Your task to perform on an android device: Add "amazon basics triple a" to the cart on target, then select checkout. Image 0: 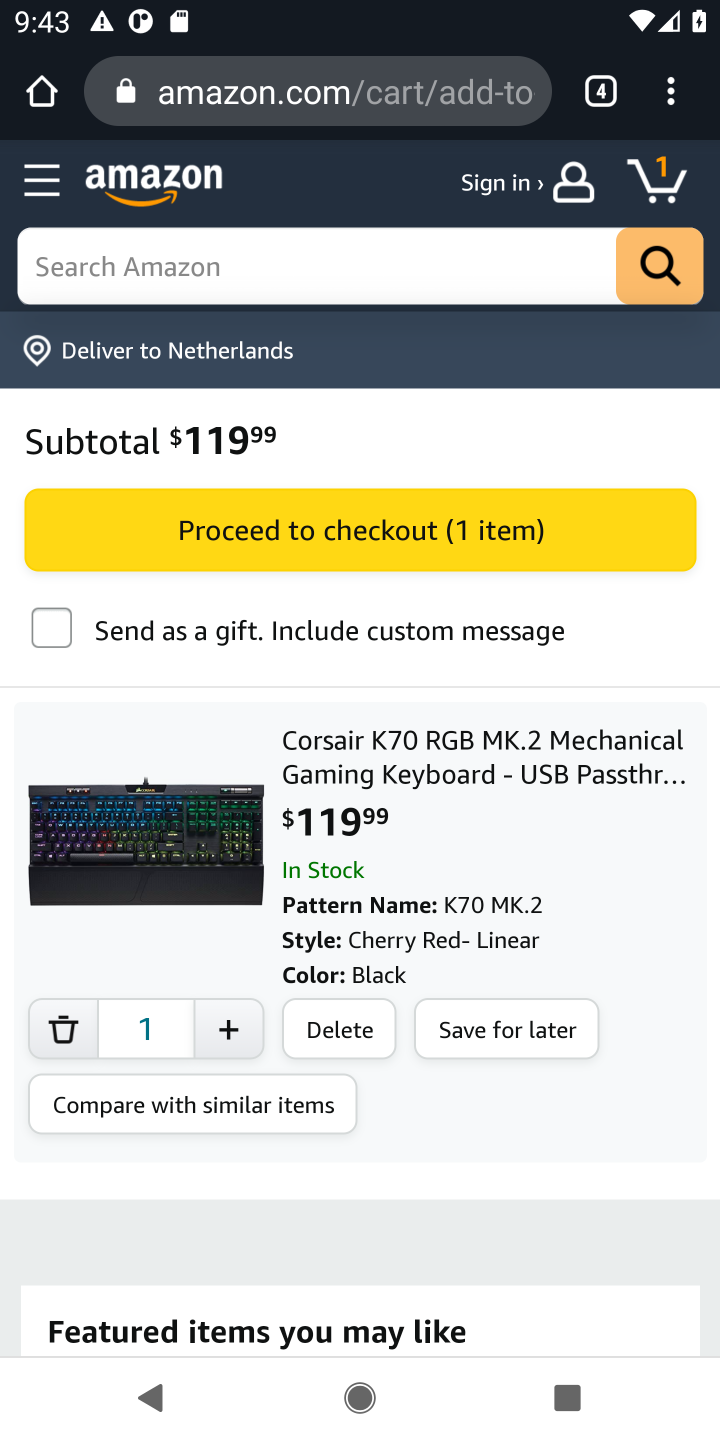
Step 0: task complete